Your task to perform on an android device: move a message to another label in the gmail app Image 0: 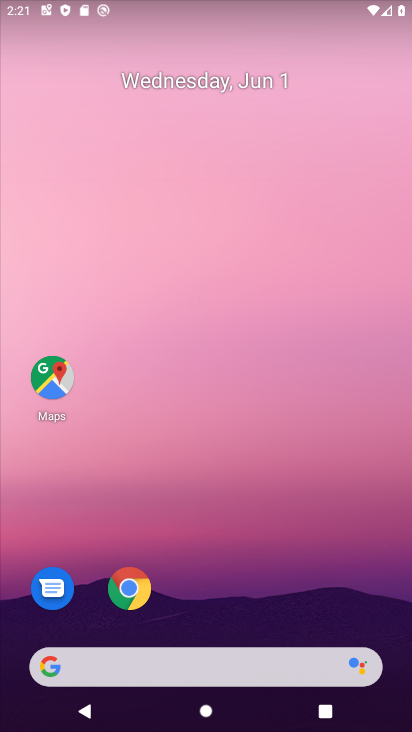
Step 0: drag from (235, 598) to (253, 121)
Your task to perform on an android device: move a message to another label in the gmail app Image 1: 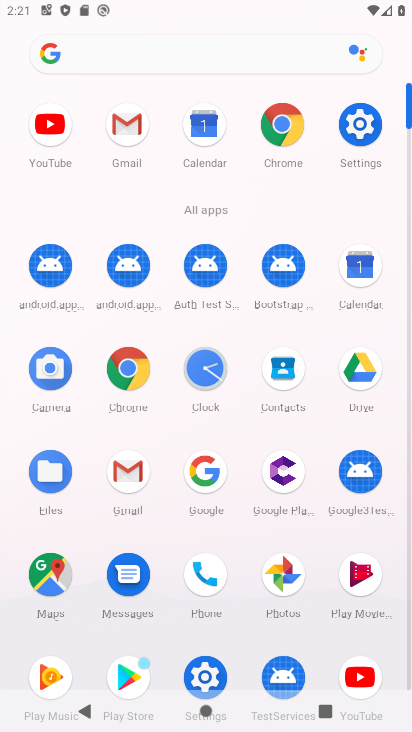
Step 1: click (112, 126)
Your task to perform on an android device: move a message to another label in the gmail app Image 2: 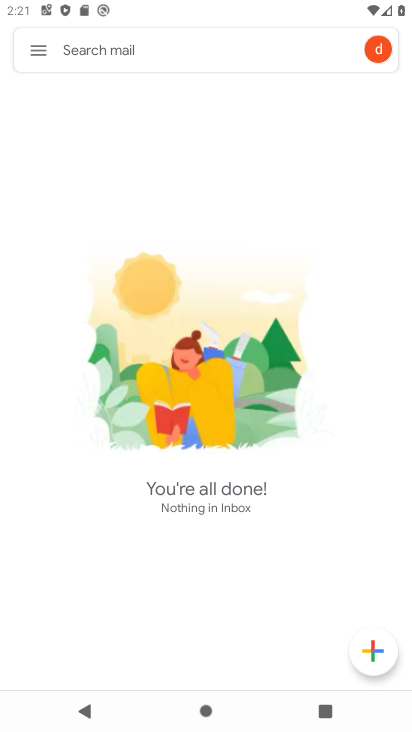
Step 2: click (38, 53)
Your task to perform on an android device: move a message to another label in the gmail app Image 3: 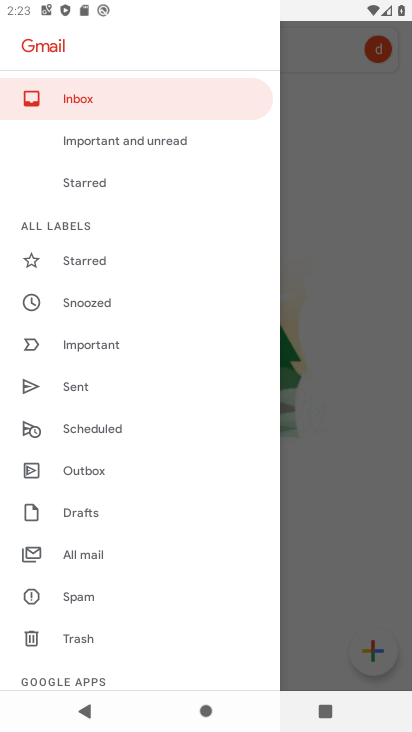
Step 3: click (97, 557)
Your task to perform on an android device: move a message to another label in the gmail app Image 4: 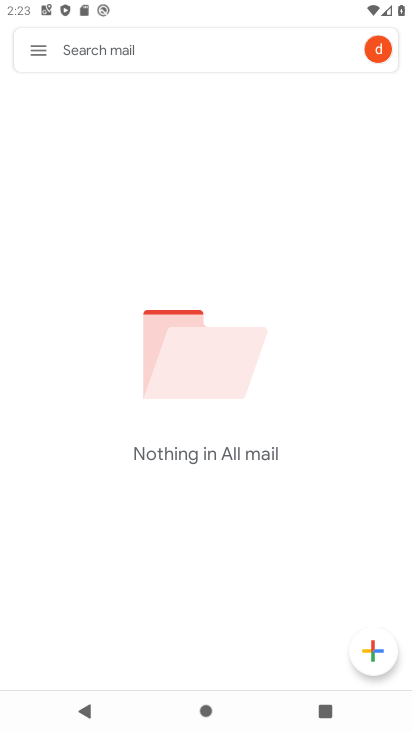
Step 4: task complete